Your task to perform on an android device: Open Google Chrome Image 0: 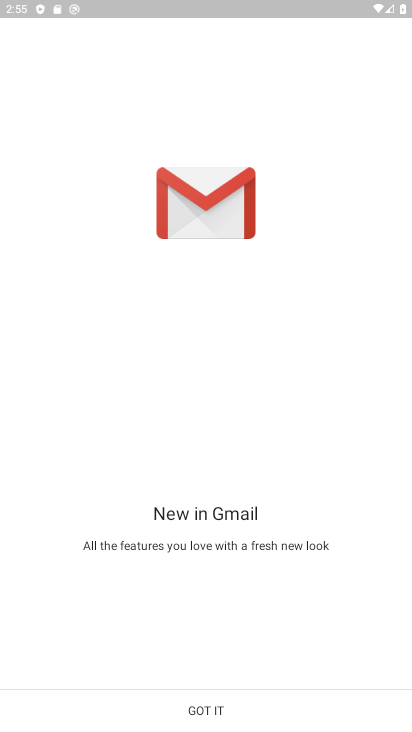
Step 0: press back button
Your task to perform on an android device: Open Google Chrome Image 1: 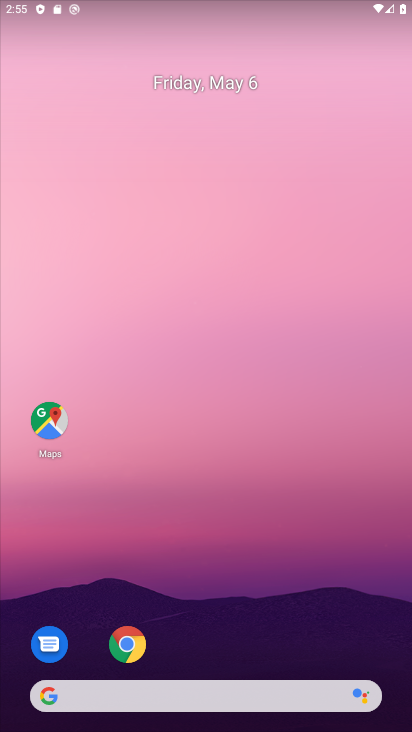
Step 1: click (129, 645)
Your task to perform on an android device: Open Google Chrome Image 2: 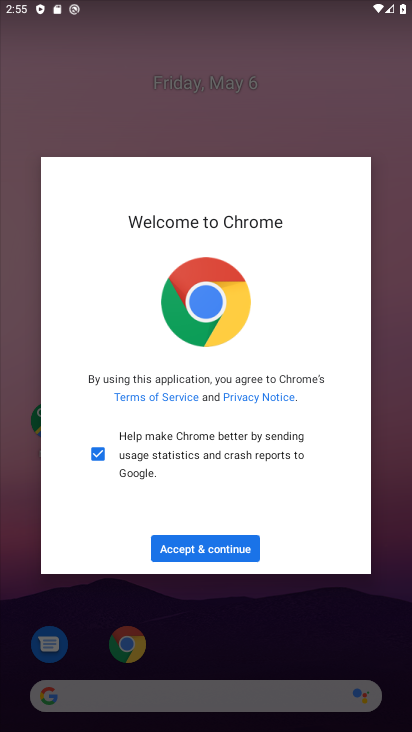
Step 2: click (195, 552)
Your task to perform on an android device: Open Google Chrome Image 3: 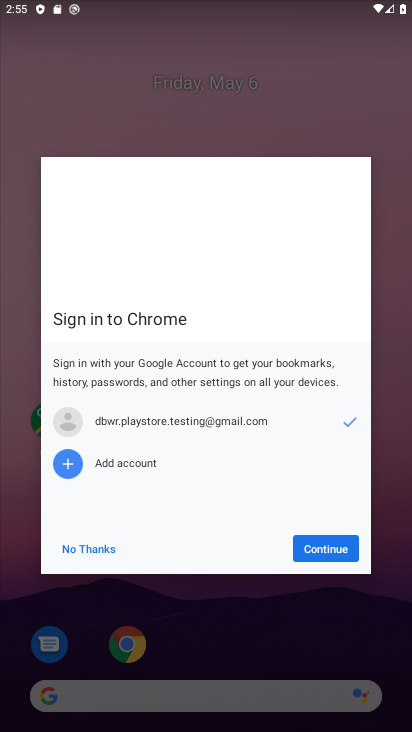
Step 3: click (318, 542)
Your task to perform on an android device: Open Google Chrome Image 4: 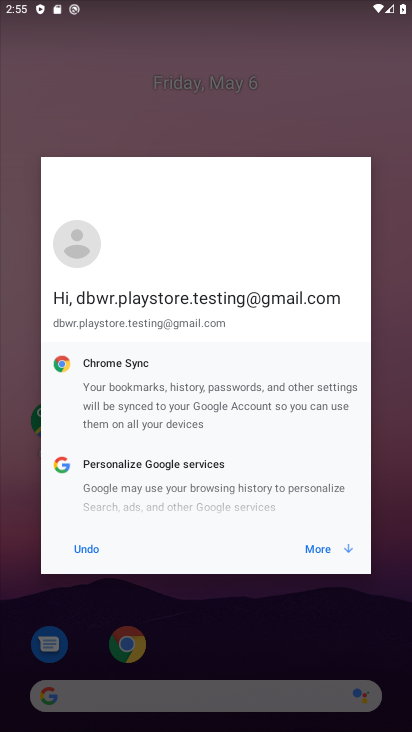
Step 4: click (320, 545)
Your task to perform on an android device: Open Google Chrome Image 5: 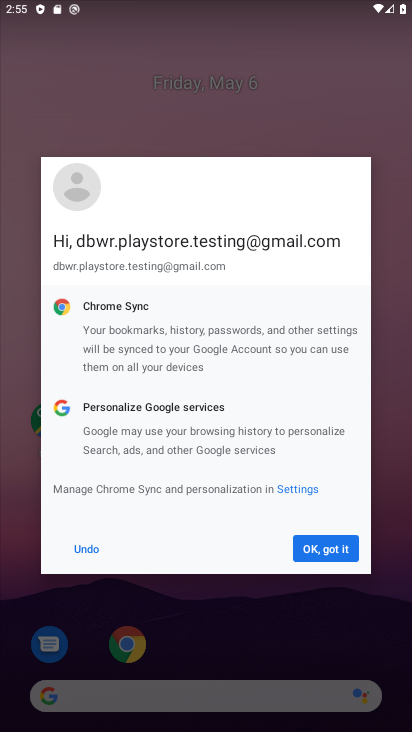
Step 5: click (320, 545)
Your task to perform on an android device: Open Google Chrome Image 6: 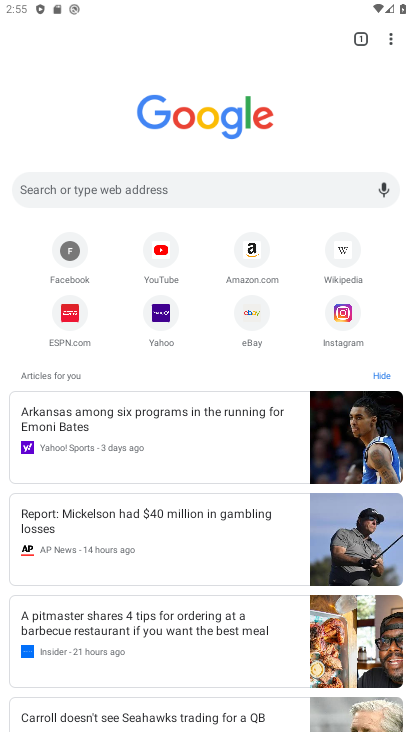
Step 6: task complete